Your task to perform on an android device: Show me productivity apps on the Play Store Image 0: 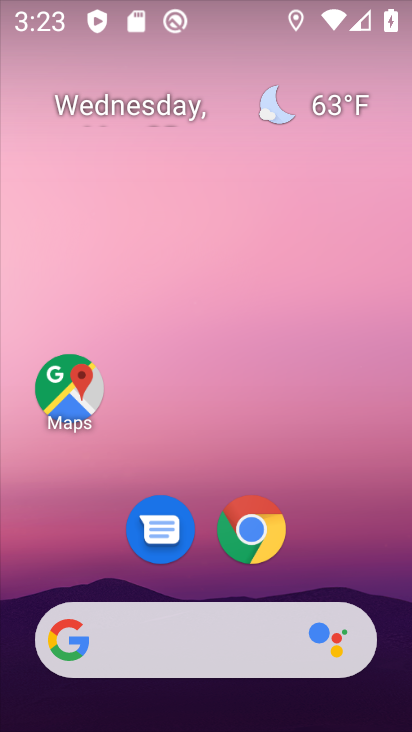
Step 0: drag from (69, 583) to (191, 104)
Your task to perform on an android device: Show me productivity apps on the Play Store Image 1: 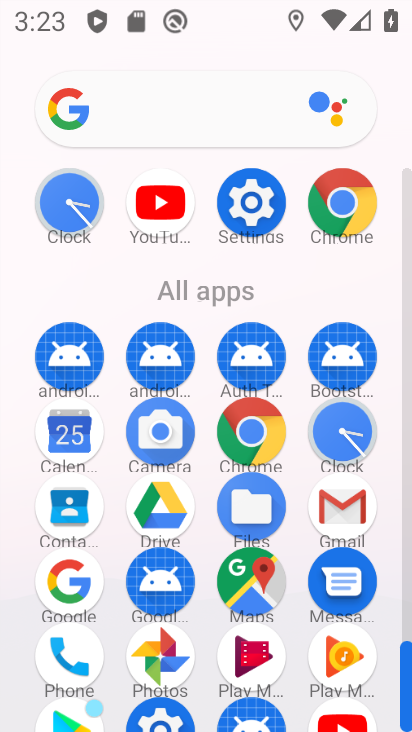
Step 1: drag from (139, 615) to (195, 416)
Your task to perform on an android device: Show me productivity apps on the Play Store Image 2: 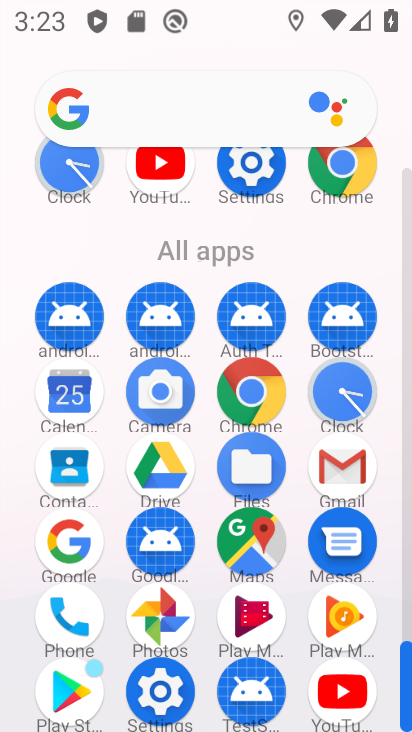
Step 2: click (69, 692)
Your task to perform on an android device: Show me productivity apps on the Play Store Image 3: 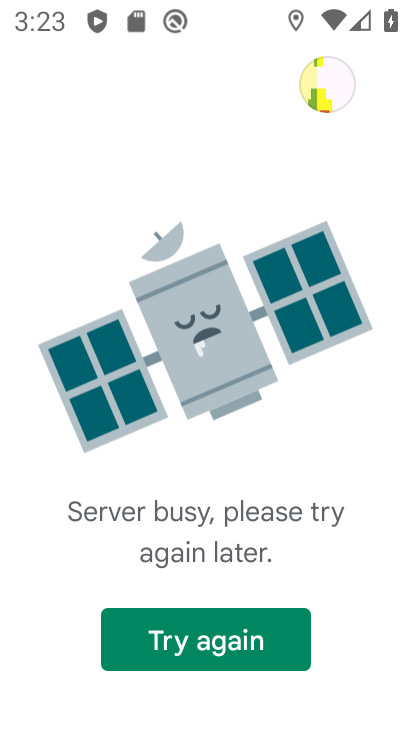
Step 3: task complete